Your task to perform on an android device: Open privacy settings Image 0: 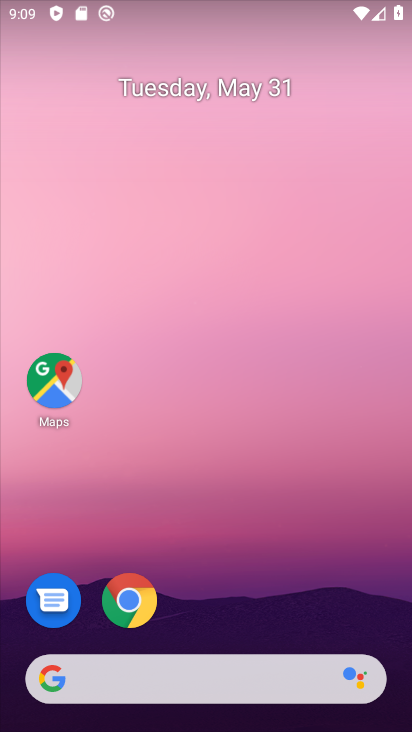
Step 0: click (135, 607)
Your task to perform on an android device: Open privacy settings Image 1: 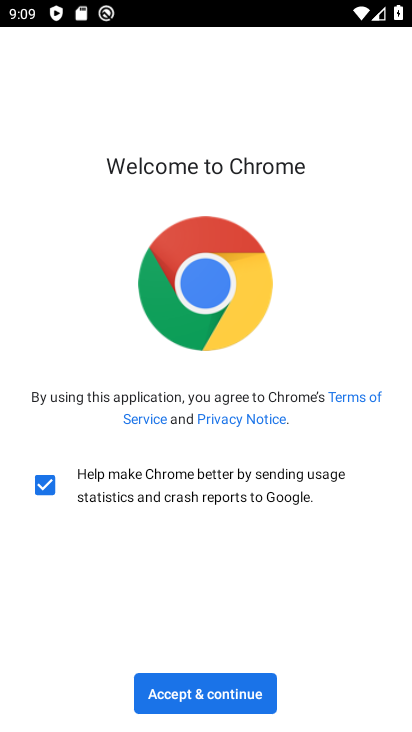
Step 1: click (182, 698)
Your task to perform on an android device: Open privacy settings Image 2: 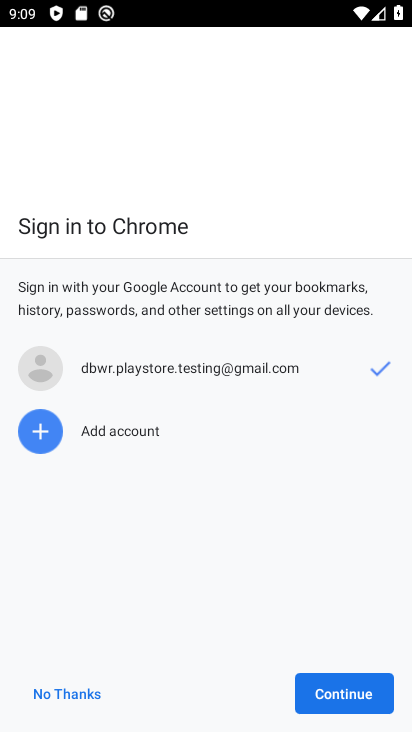
Step 2: click (341, 702)
Your task to perform on an android device: Open privacy settings Image 3: 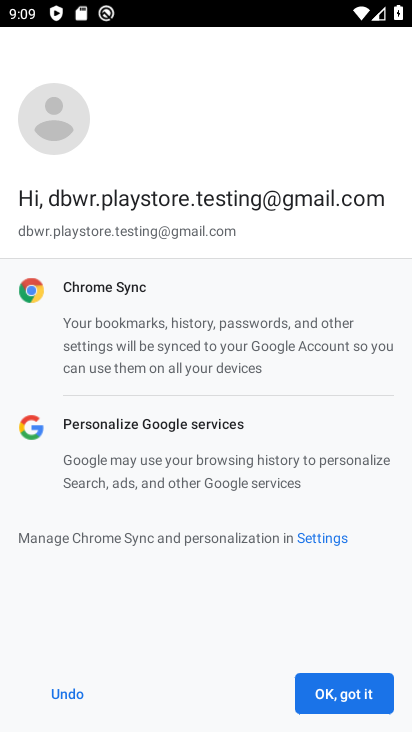
Step 3: click (336, 699)
Your task to perform on an android device: Open privacy settings Image 4: 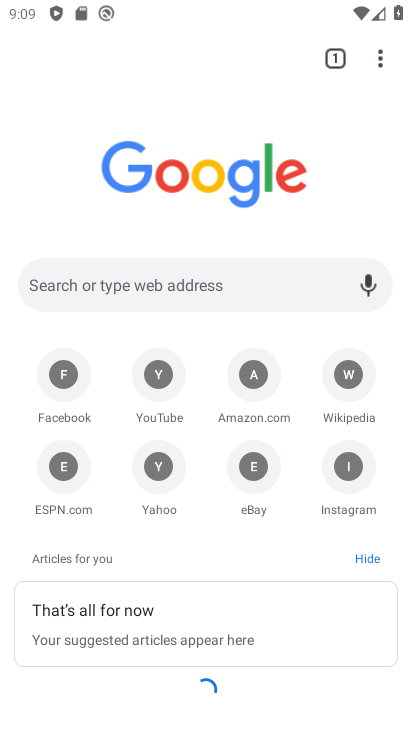
Step 4: press home button
Your task to perform on an android device: Open privacy settings Image 5: 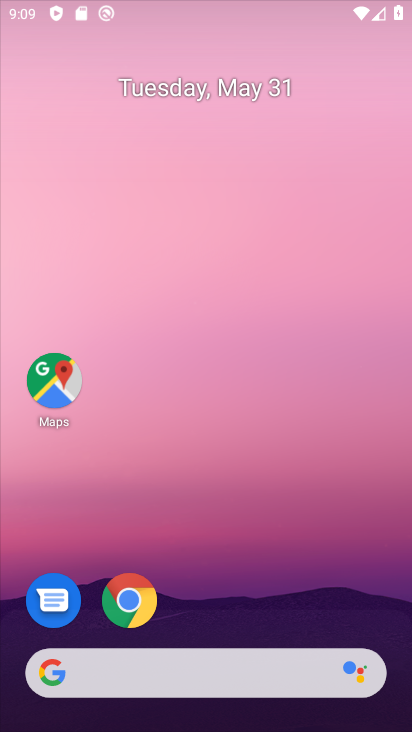
Step 5: drag from (246, 611) to (255, 72)
Your task to perform on an android device: Open privacy settings Image 6: 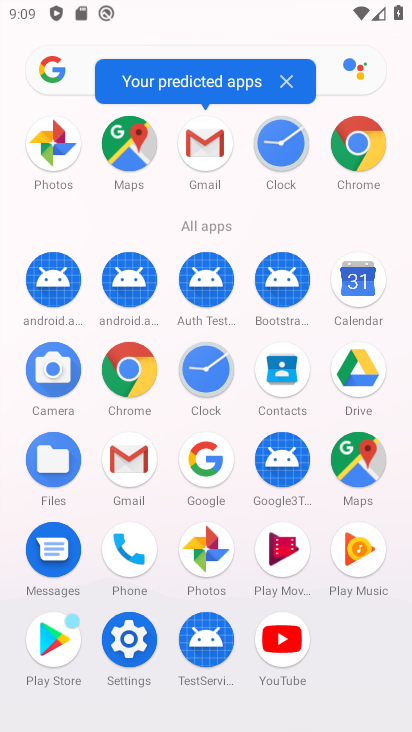
Step 6: click (118, 652)
Your task to perform on an android device: Open privacy settings Image 7: 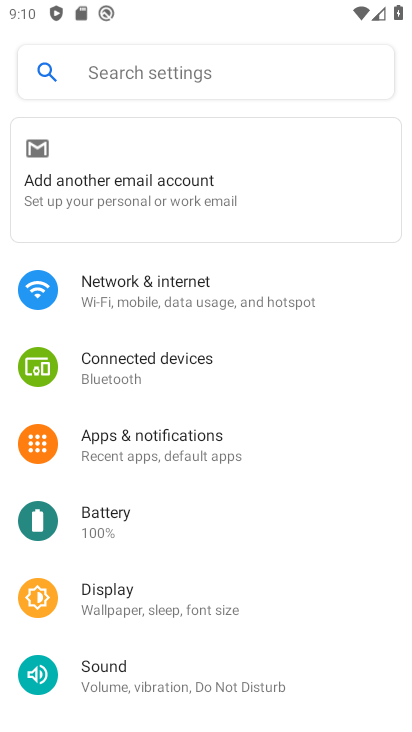
Step 7: drag from (173, 641) to (187, 309)
Your task to perform on an android device: Open privacy settings Image 8: 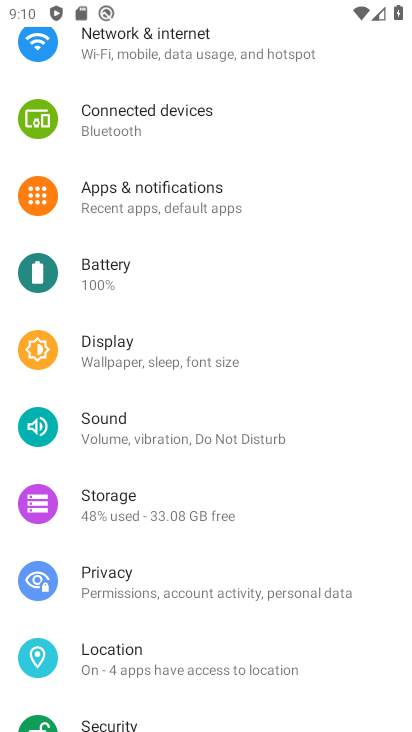
Step 8: click (123, 596)
Your task to perform on an android device: Open privacy settings Image 9: 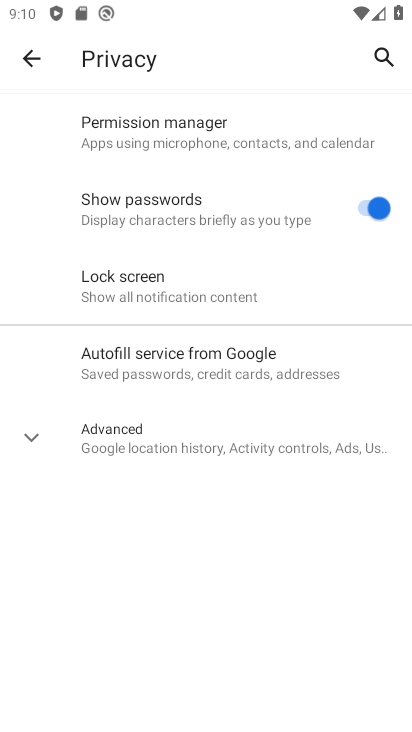
Step 9: task complete